Your task to perform on an android device: turn on the 24-hour format for clock Image 0: 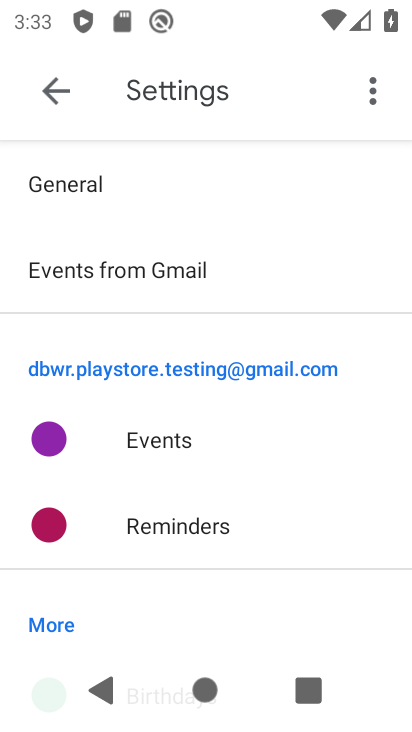
Step 0: press home button
Your task to perform on an android device: turn on the 24-hour format for clock Image 1: 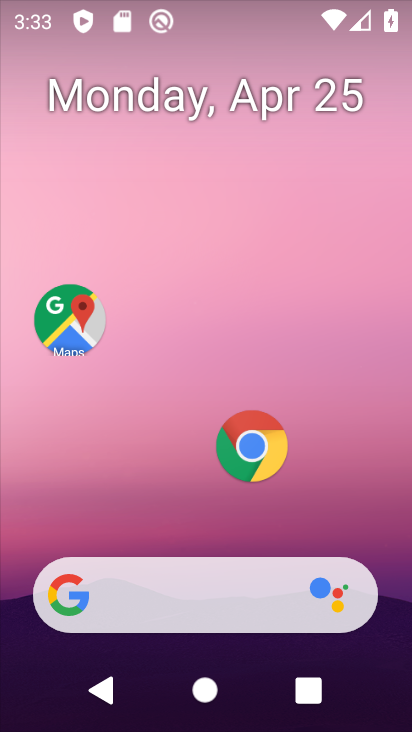
Step 1: drag from (195, 466) to (279, 109)
Your task to perform on an android device: turn on the 24-hour format for clock Image 2: 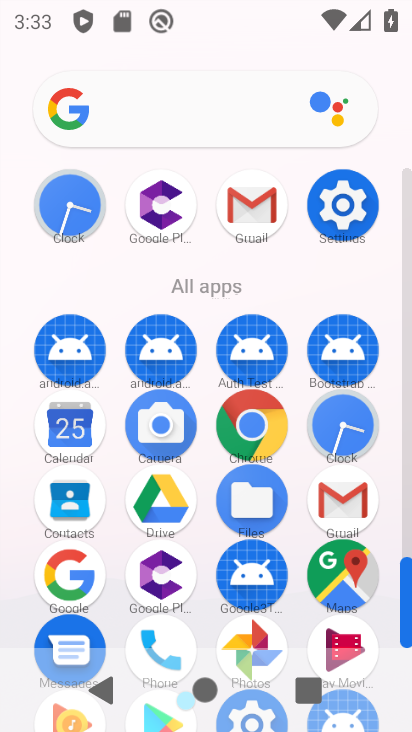
Step 2: click (342, 412)
Your task to perform on an android device: turn on the 24-hour format for clock Image 3: 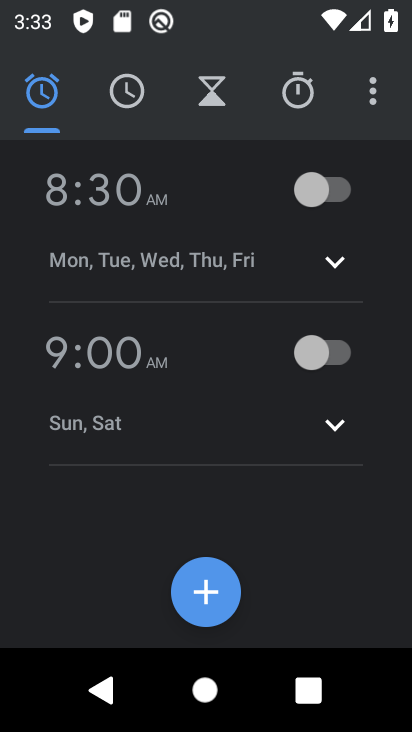
Step 3: click (379, 95)
Your task to perform on an android device: turn on the 24-hour format for clock Image 4: 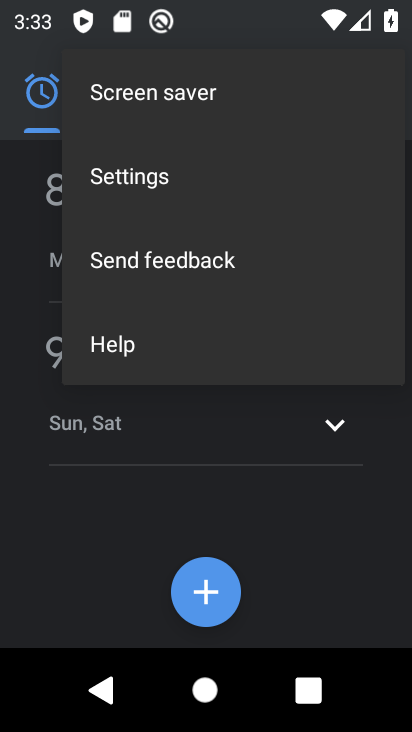
Step 4: click (134, 198)
Your task to perform on an android device: turn on the 24-hour format for clock Image 5: 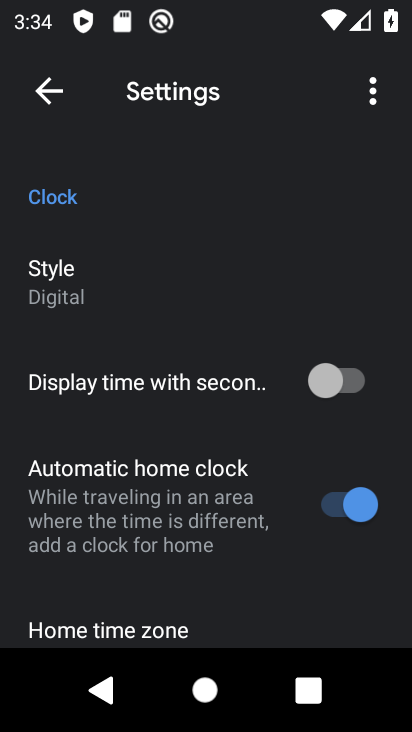
Step 5: drag from (126, 597) to (171, 52)
Your task to perform on an android device: turn on the 24-hour format for clock Image 6: 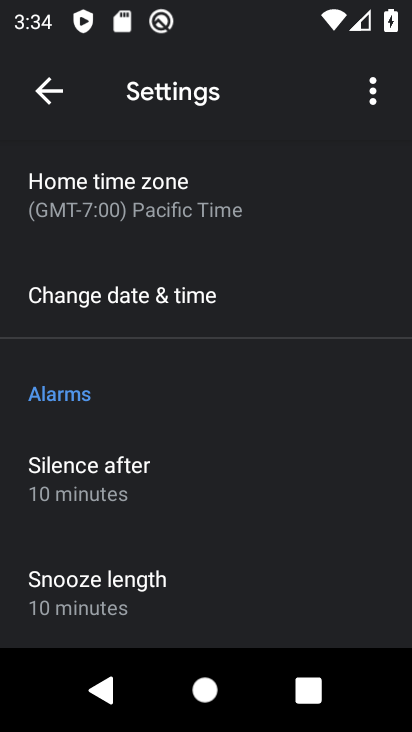
Step 6: click (112, 294)
Your task to perform on an android device: turn on the 24-hour format for clock Image 7: 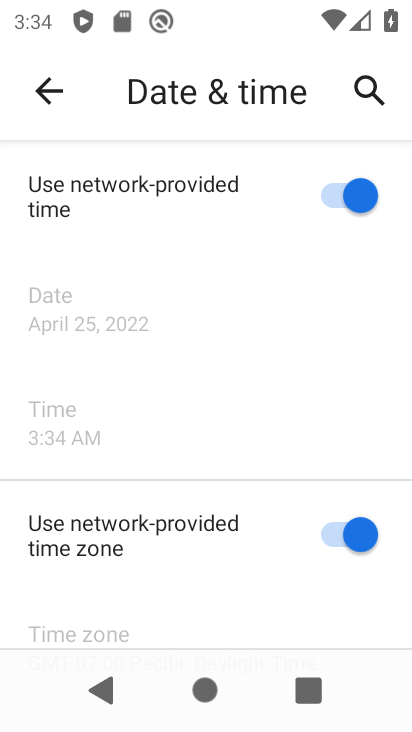
Step 7: drag from (80, 610) to (145, 46)
Your task to perform on an android device: turn on the 24-hour format for clock Image 8: 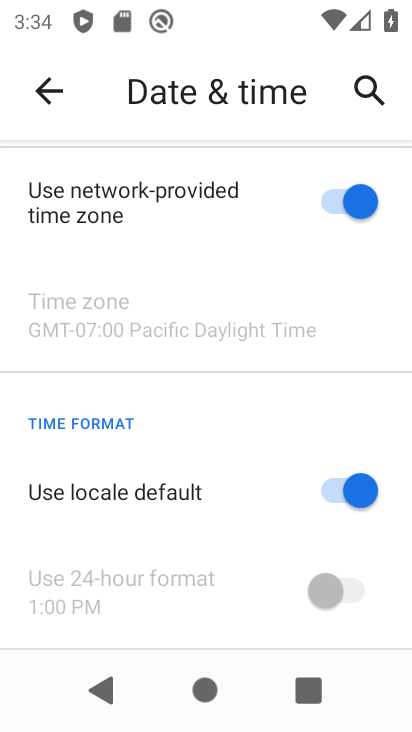
Step 8: click (325, 493)
Your task to perform on an android device: turn on the 24-hour format for clock Image 9: 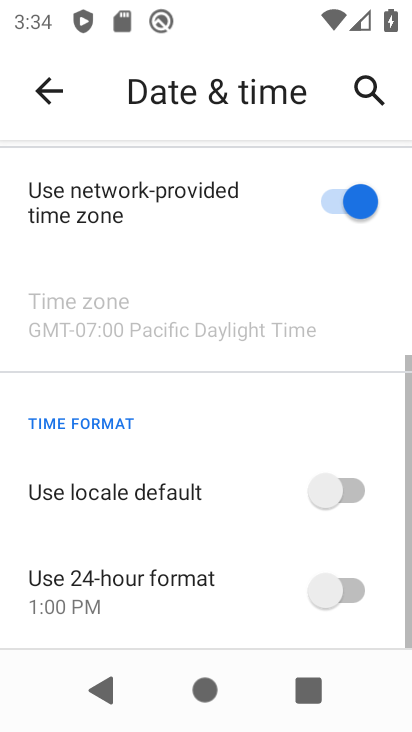
Step 9: click (349, 592)
Your task to perform on an android device: turn on the 24-hour format for clock Image 10: 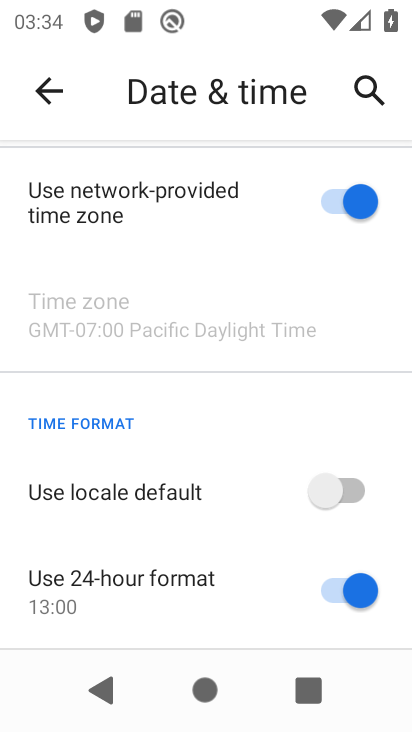
Step 10: task complete